Your task to perform on an android device: turn off airplane mode Image 0: 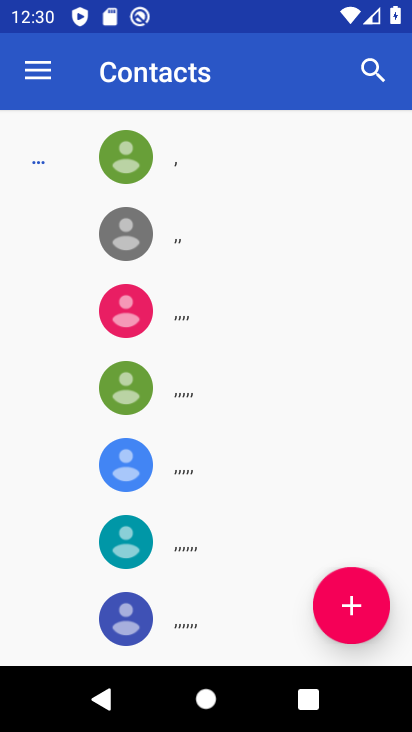
Step 0: press home button
Your task to perform on an android device: turn off airplane mode Image 1: 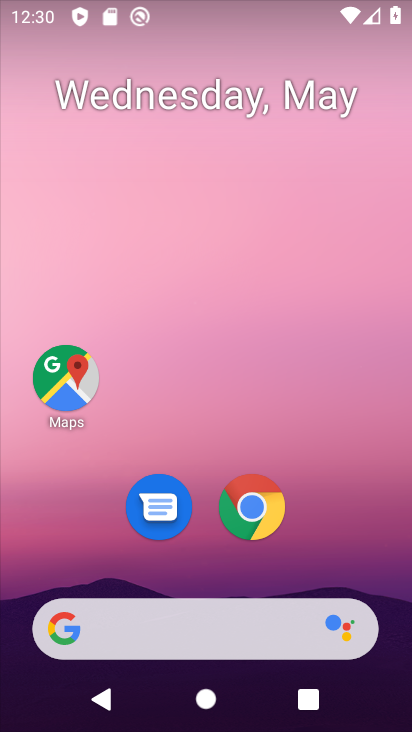
Step 1: drag from (393, 605) to (369, 120)
Your task to perform on an android device: turn off airplane mode Image 2: 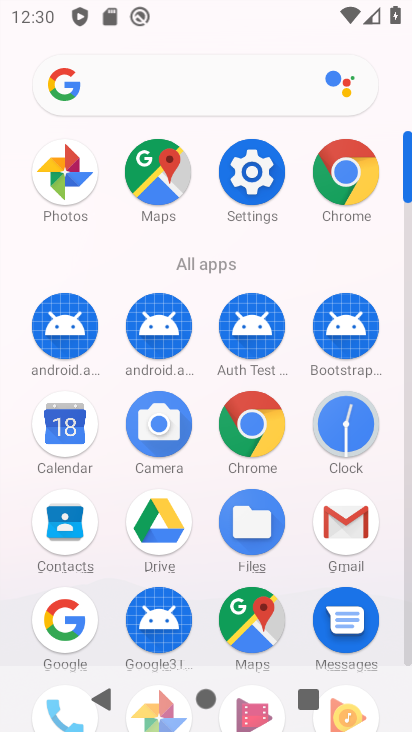
Step 2: click (409, 654)
Your task to perform on an android device: turn off airplane mode Image 3: 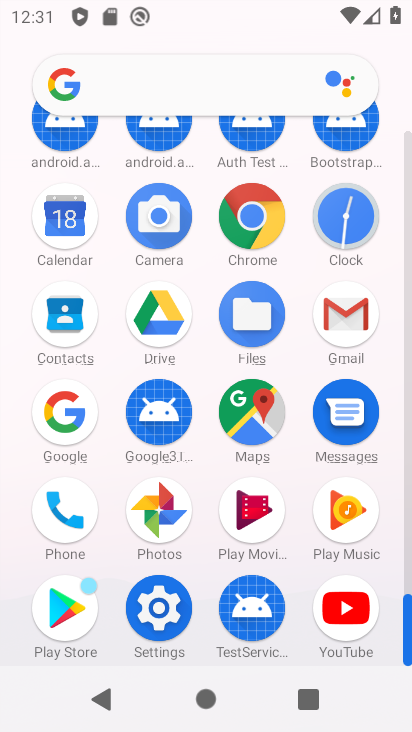
Step 3: click (159, 609)
Your task to perform on an android device: turn off airplane mode Image 4: 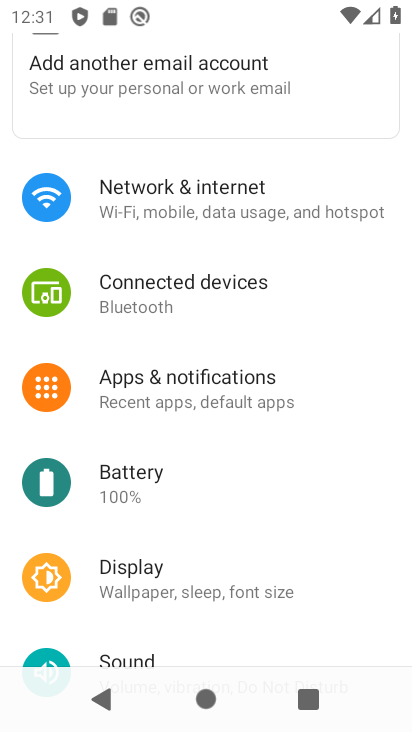
Step 4: click (164, 194)
Your task to perform on an android device: turn off airplane mode Image 5: 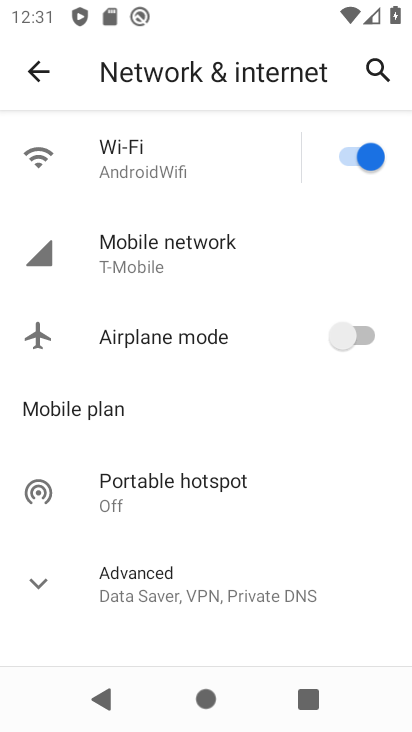
Step 5: task complete